Your task to perform on an android device: Go to privacy settings Image 0: 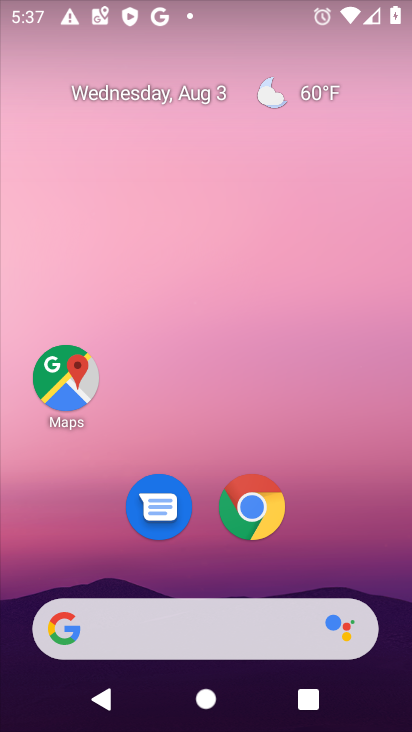
Step 0: drag from (370, 508) to (366, 21)
Your task to perform on an android device: Go to privacy settings Image 1: 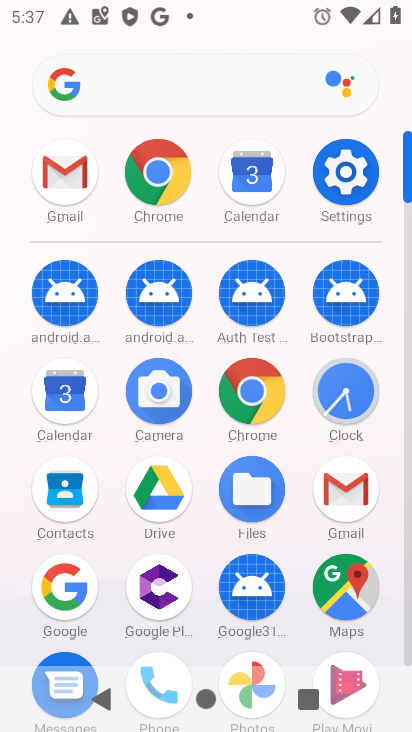
Step 1: click (358, 182)
Your task to perform on an android device: Go to privacy settings Image 2: 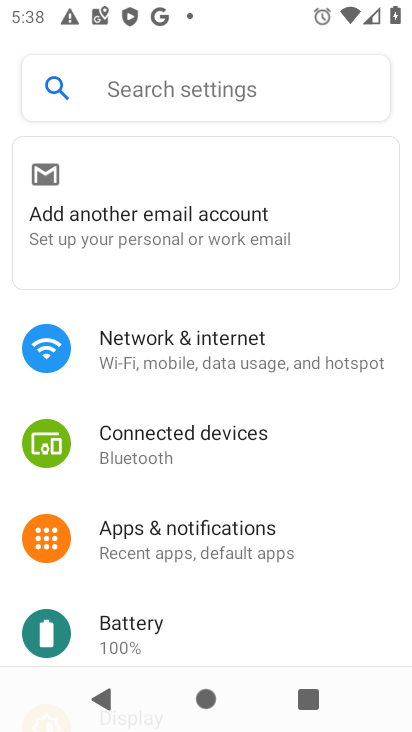
Step 2: drag from (276, 611) to (297, 164)
Your task to perform on an android device: Go to privacy settings Image 3: 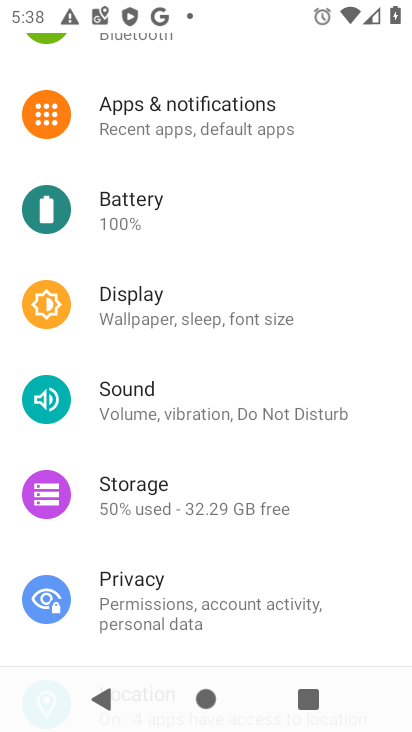
Step 3: click (124, 592)
Your task to perform on an android device: Go to privacy settings Image 4: 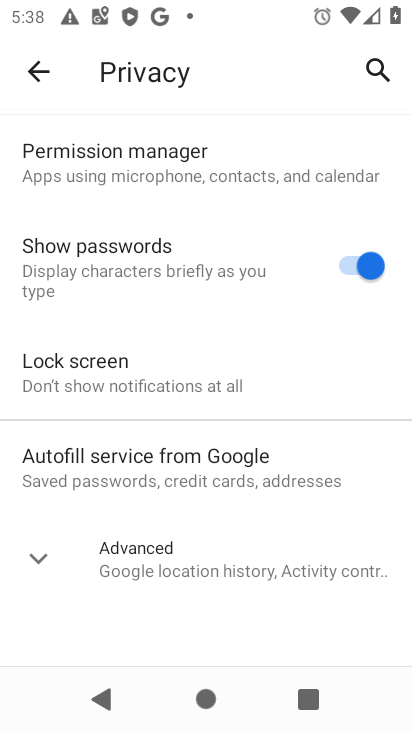
Step 4: task complete